Your task to perform on an android device: Search for pizza restaurants on Maps Image 0: 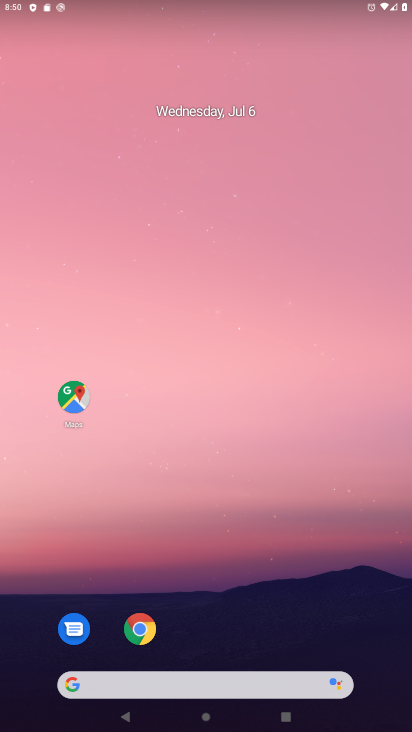
Step 0: drag from (35, 647) to (352, 125)
Your task to perform on an android device: Search for pizza restaurants on Maps Image 1: 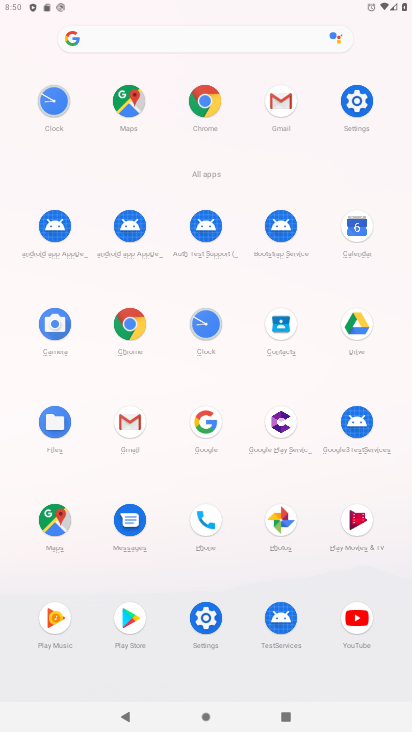
Step 1: click (54, 536)
Your task to perform on an android device: Search for pizza restaurants on Maps Image 2: 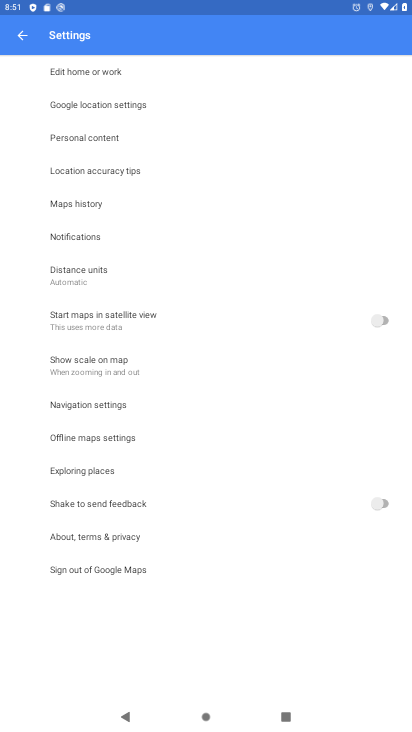
Step 2: press back button
Your task to perform on an android device: Search for pizza restaurants on Maps Image 3: 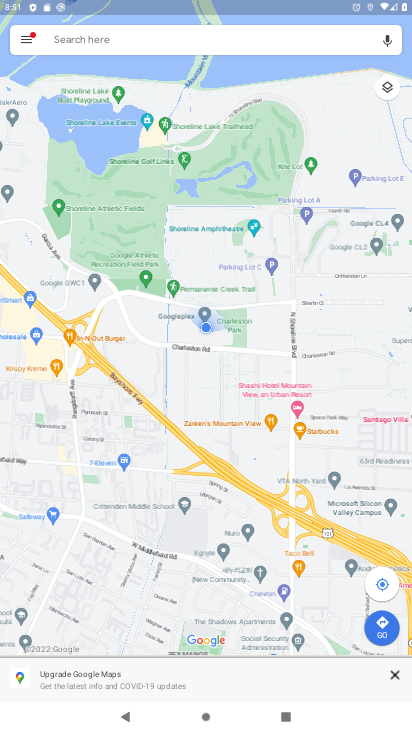
Step 3: click (217, 35)
Your task to perform on an android device: Search for pizza restaurants on Maps Image 4: 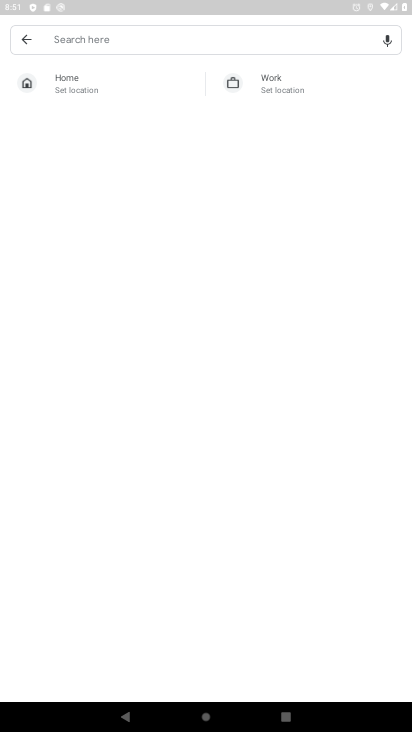
Step 4: type "pizza restaurants "
Your task to perform on an android device: Search for pizza restaurants on Maps Image 5: 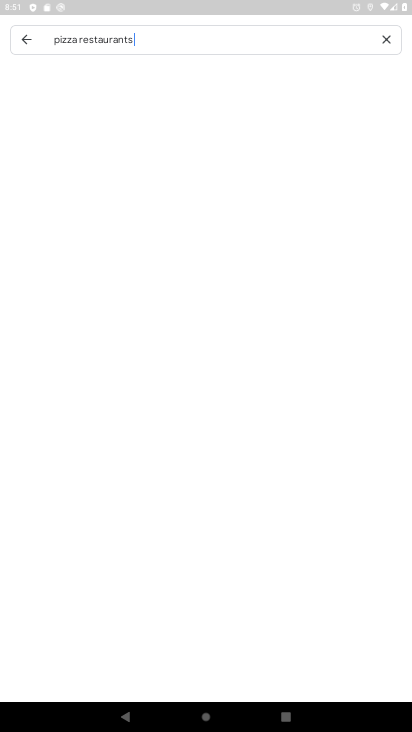
Step 5: type ""
Your task to perform on an android device: Search for pizza restaurants on Maps Image 6: 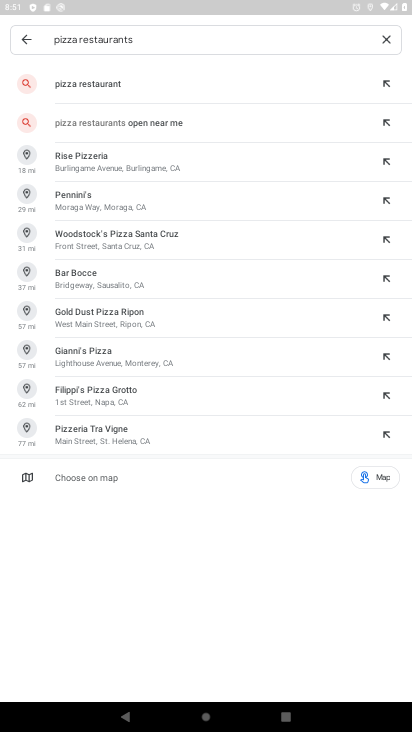
Step 6: click (92, 85)
Your task to perform on an android device: Search for pizza restaurants on Maps Image 7: 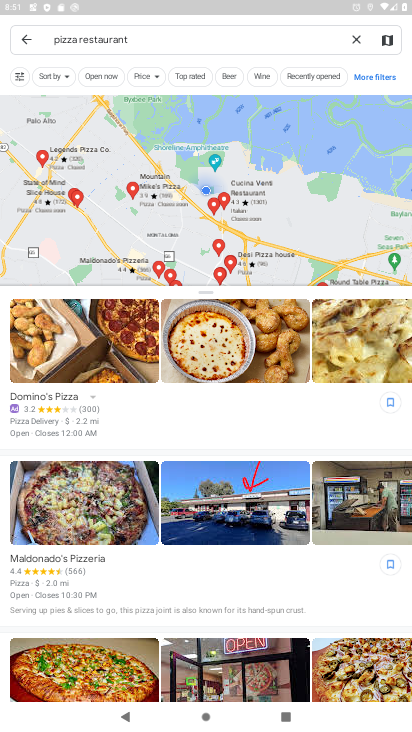
Step 7: task complete